Your task to perform on an android device: Open the phone app and click the voicemail tab. Image 0: 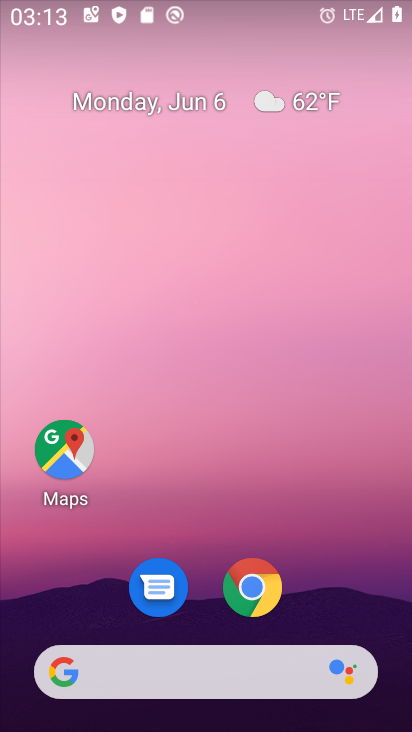
Step 0: drag from (323, 599) to (239, 50)
Your task to perform on an android device: Open the phone app and click the voicemail tab. Image 1: 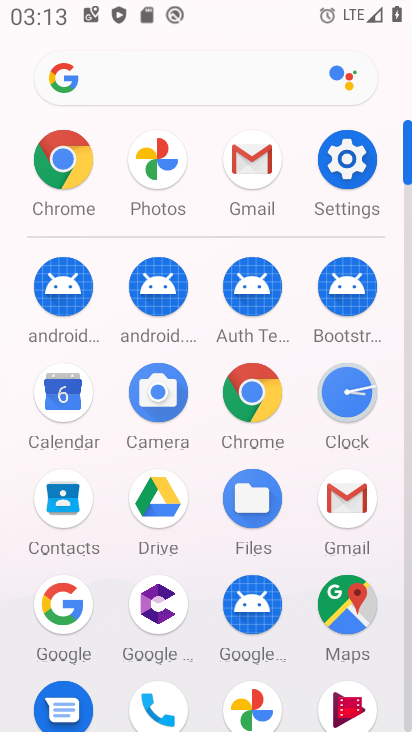
Step 1: drag from (5, 573) to (16, 231)
Your task to perform on an android device: Open the phone app and click the voicemail tab. Image 2: 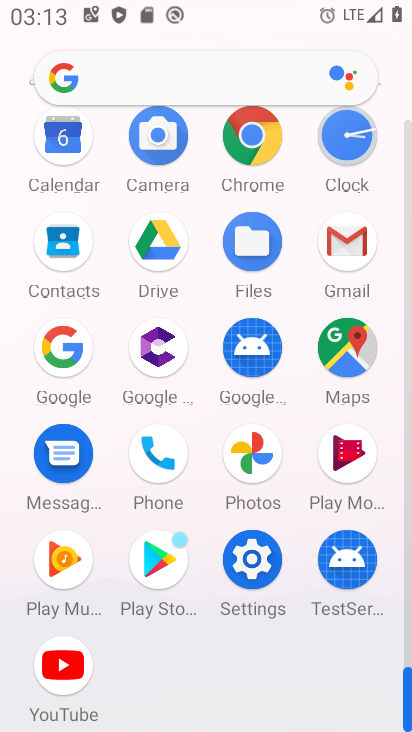
Step 2: click (153, 446)
Your task to perform on an android device: Open the phone app and click the voicemail tab. Image 3: 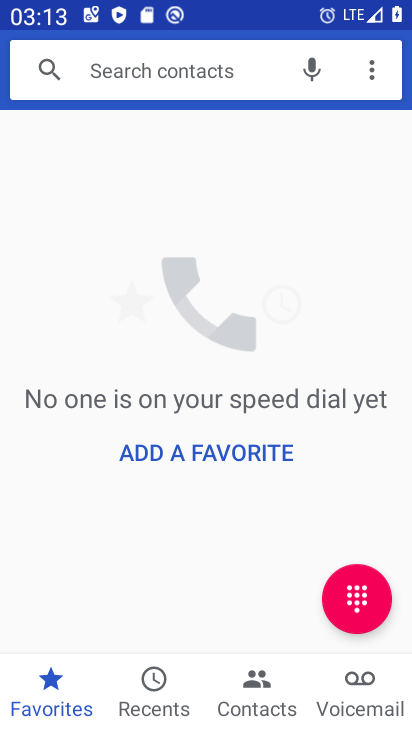
Step 3: click (357, 669)
Your task to perform on an android device: Open the phone app and click the voicemail tab. Image 4: 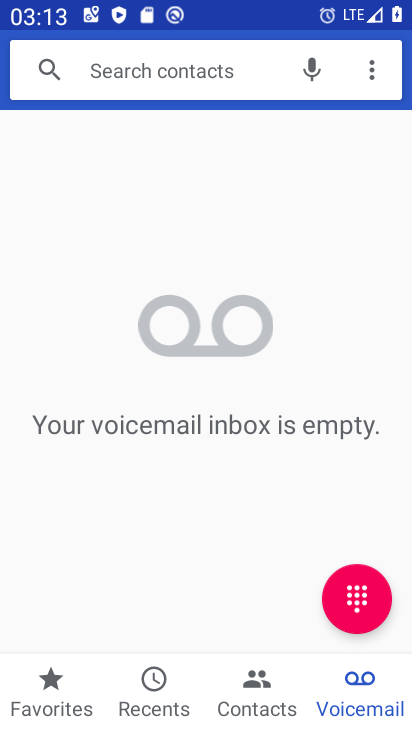
Step 4: task complete